Your task to perform on an android device: open a bookmark in the chrome app Image 0: 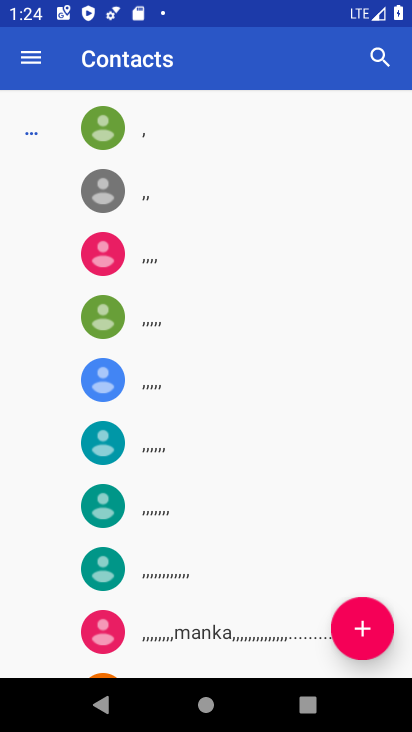
Step 0: press home button
Your task to perform on an android device: open a bookmark in the chrome app Image 1: 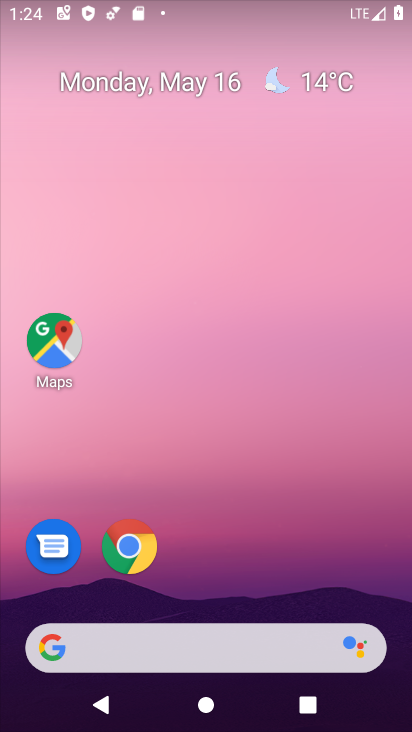
Step 1: drag from (237, 678) to (277, 241)
Your task to perform on an android device: open a bookmark in the chrome app Image 2: 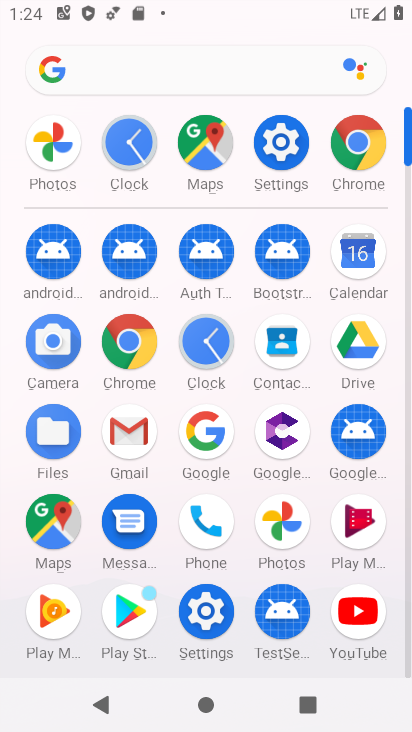
Step 2: click (337, 171)
Your task to perform on an android device: open a bookmark in the chrome app Image 3: 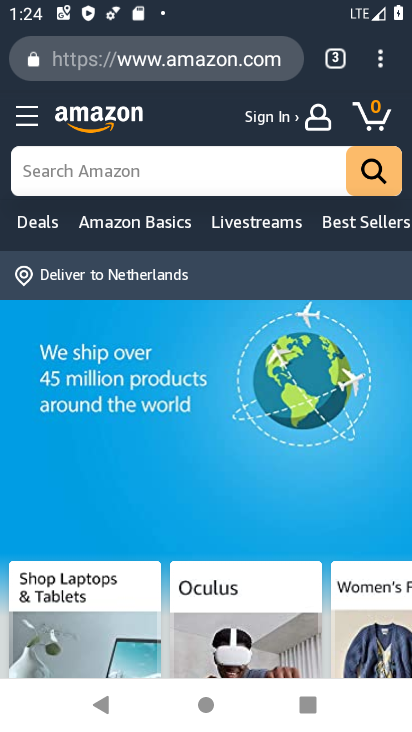
Step 3: click (380, 60)
Your task to perform on an android device: open a bookmark in the chrome app Image 4: 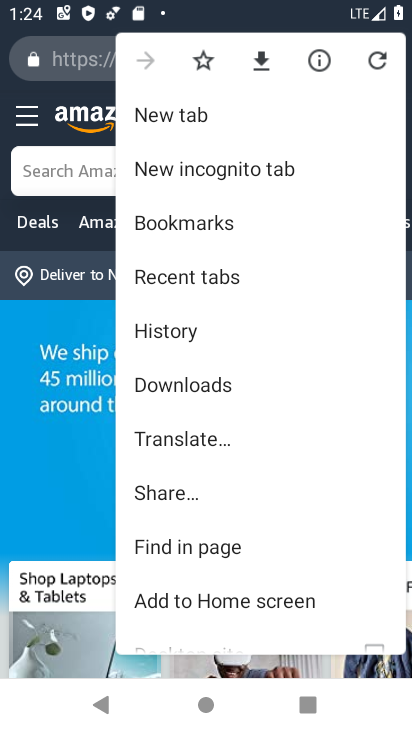
Step 4: click (211, 230)
Your task to perform on an android device: open a bookmark in the chrome app Image 5: 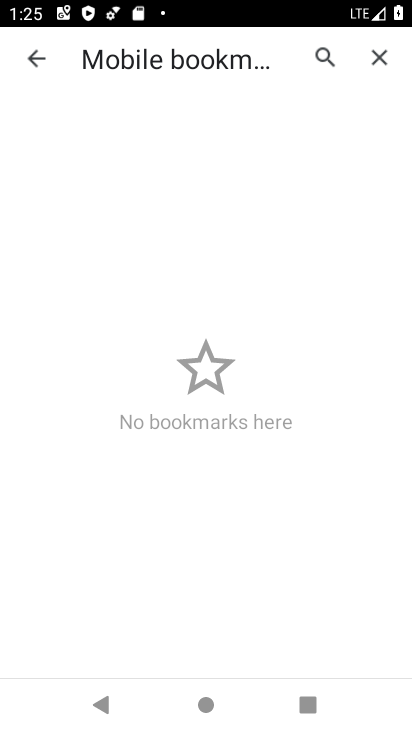
Step 5: task complete